Your task to perform on an android device: delete location history Image 0: 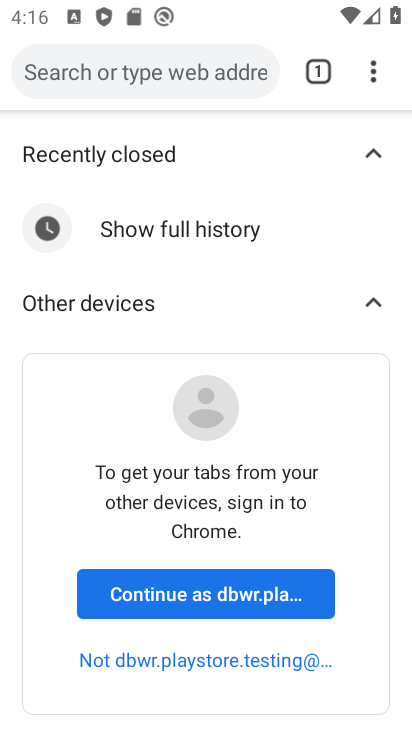
Step 0: press home button
Your task to perform on an android device: delete location history Image 1: 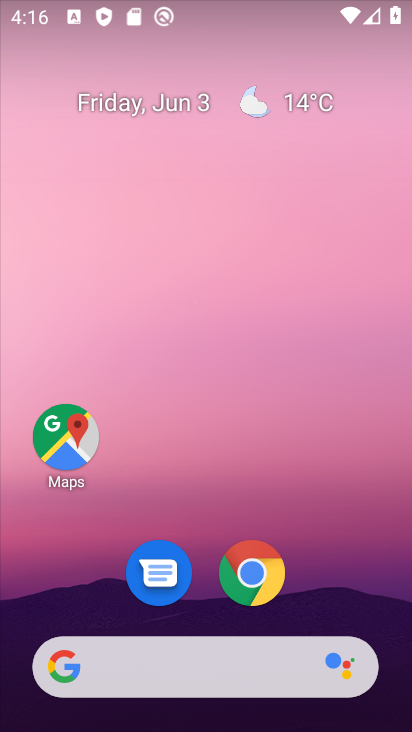
Step 1: drag from (183, 683) to (265, 6)
Your task to perform on an android device: delete location history Image 2: 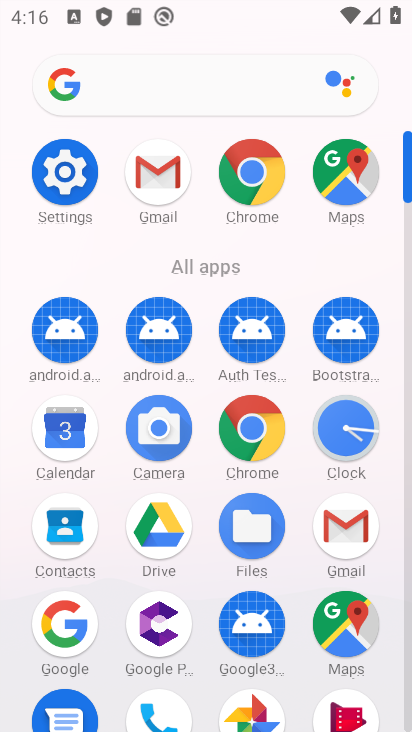
Step 2: click (60, 166)
Your task to perform on an android device: delete location history Image 3: 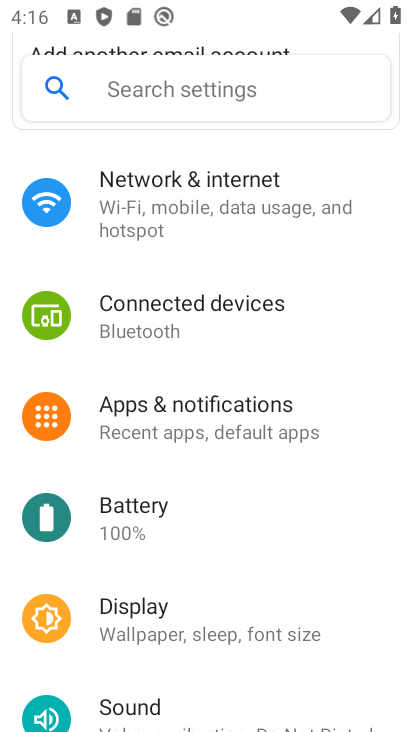
Step 3: press home button
Your task to perform on an android device: delete location history Image 4: 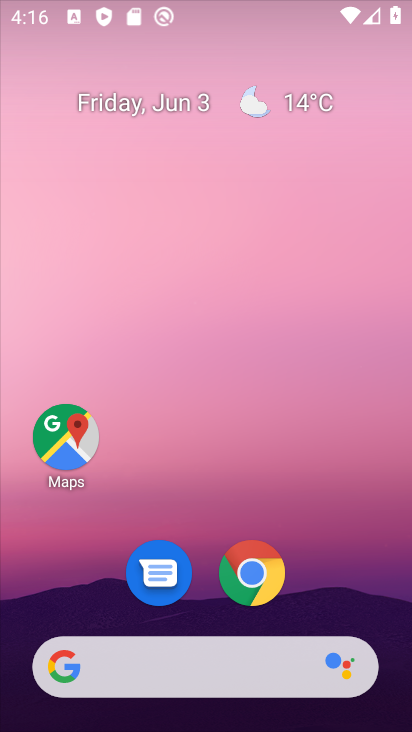
Step 4: drag from (213, 612) to (259, 156)
Your task to perform on an android device: delete location history Image 5: 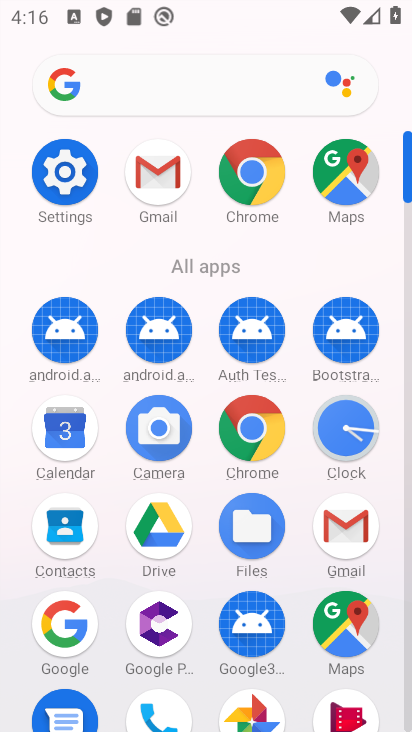
Step 5: click (347, 634)
Your task to perform on an android device: delete location history Image 6: 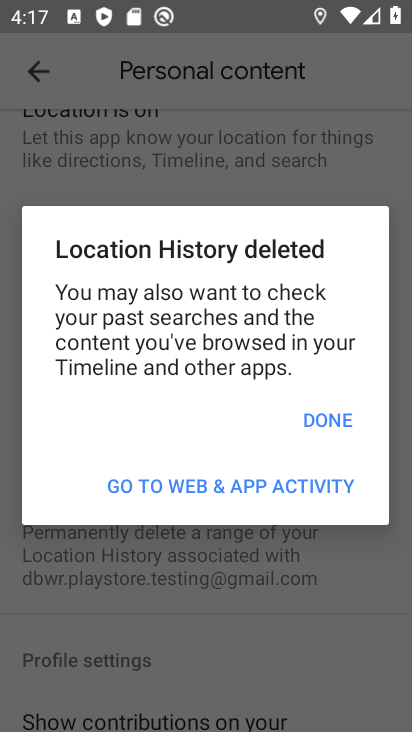
Step 6: click (334, 417)
Your task to perform on an android device: delete location history Image 7: 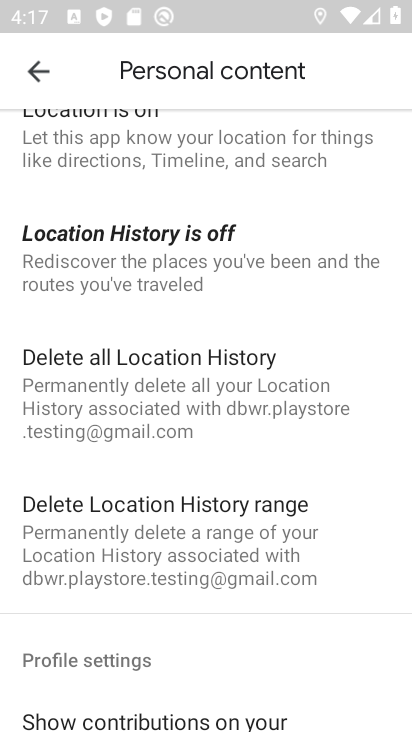
Step 7: click (149, 397)
Your task to perform on an android device: delete location history Image 8: 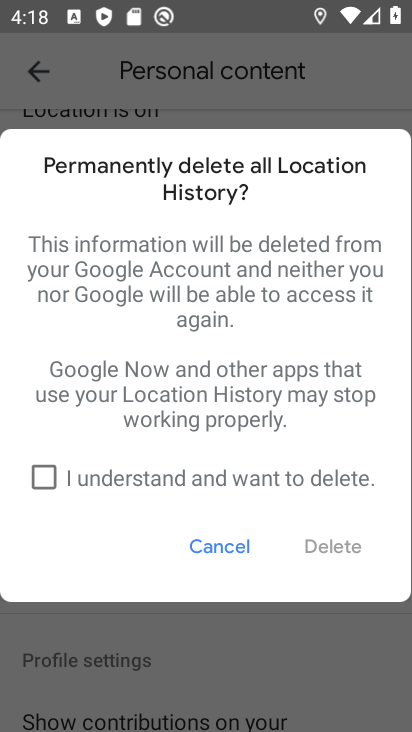
Step 8: click (41, 466)
Your task to perform on an android device: delete location history Image 9: 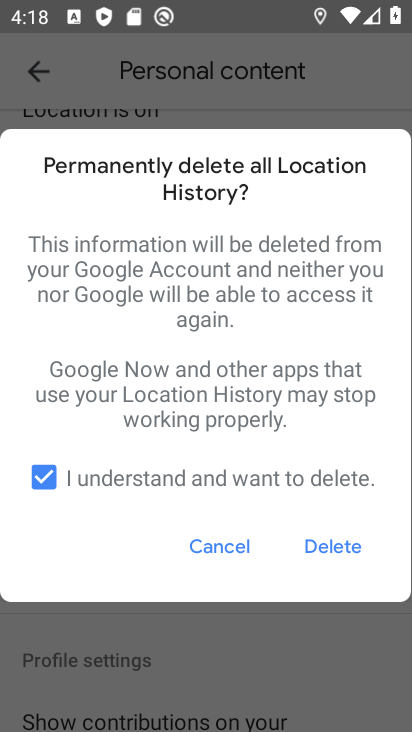
Step 9: click (335, 544)
Your task to perform on an android device: delete location history Image 10: 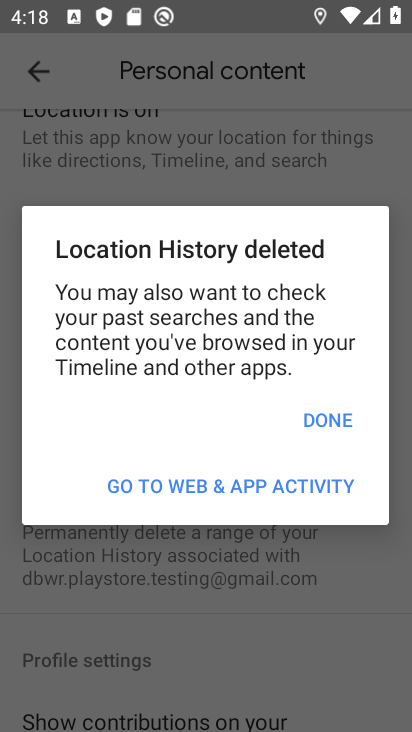
Step 10: task complete